Your task to perform on an android device: toggle priority inbox in the gmail app Image 0: 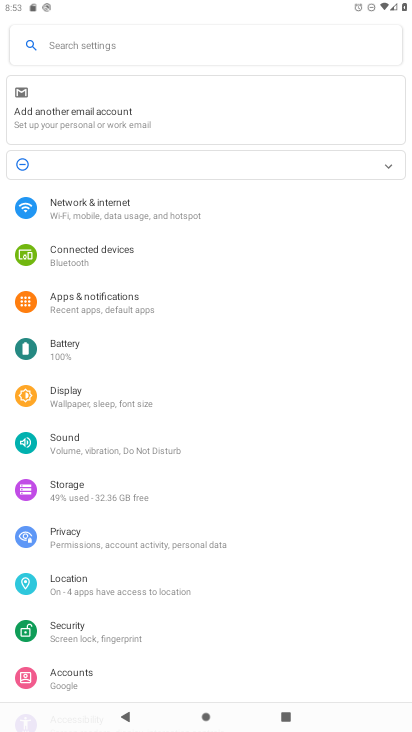
Step 0: press home button
Your task to perform on an android device: toggle priority inbox in the gmail app Image 1: 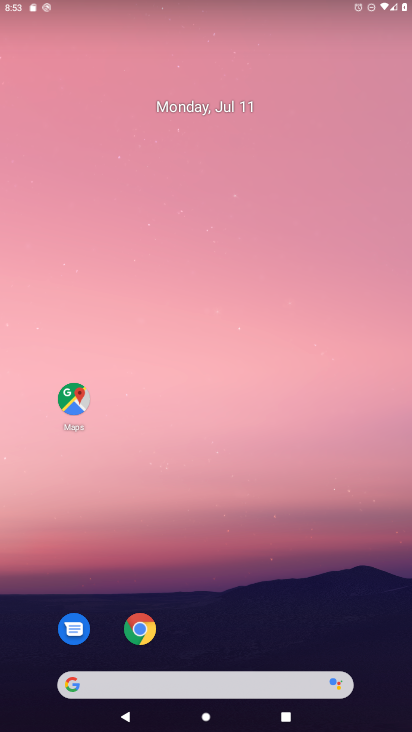
Step 1: drag from (240, 626) to (273, 58)
Your task to perform on an android device: toggle priority inbox in the gmail app Image 2: 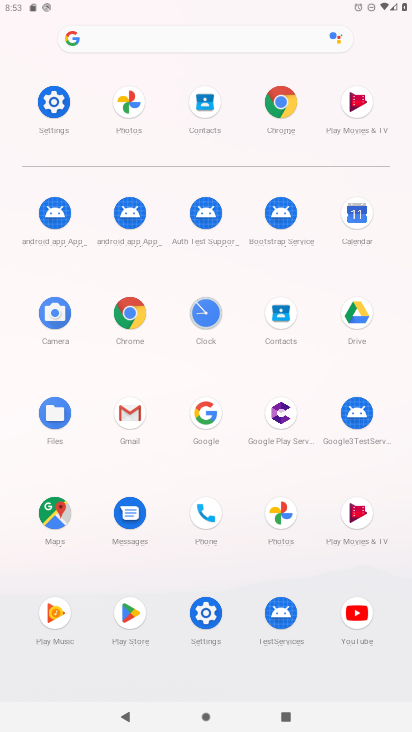
Step 2: click (132, 407)
Your task to perform on an android device: toggle priority inbox in the gmail app Image 3: 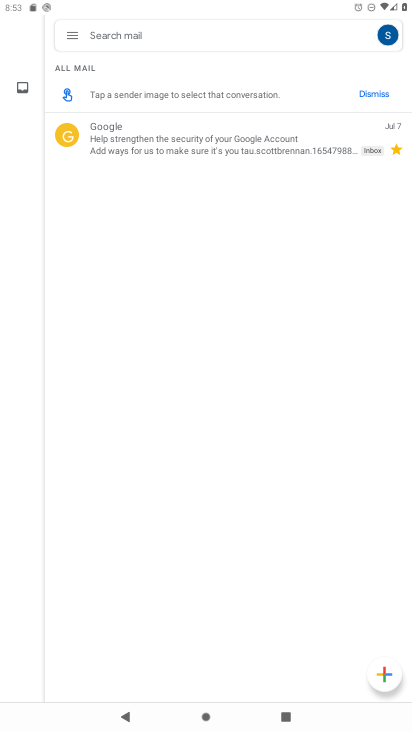
Step 3: click (70, 30)
Your task to perform on an android device: toggle priority inbox in the gmail app Image 4: 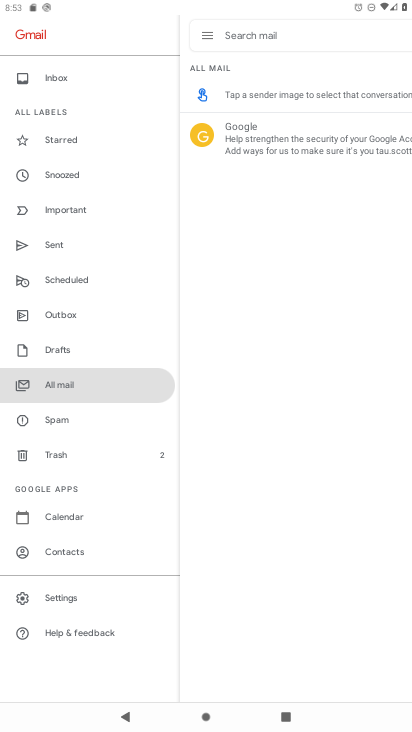
Step 4: click (69, 594)
Your task to perform on an android device: toggle priority inbox in the gmail app Image 5: 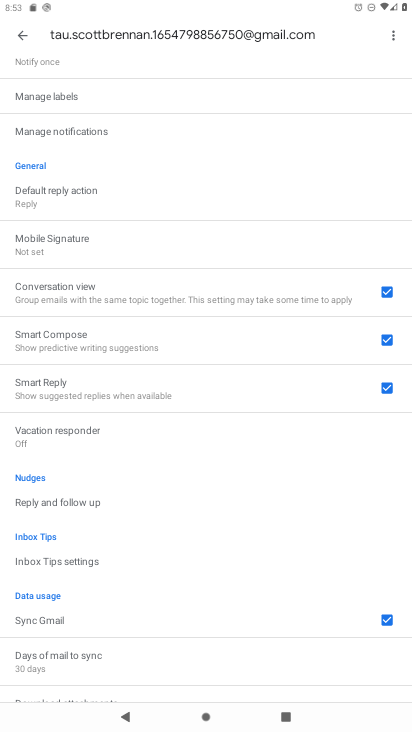
Step 5: drag from (237, 604) to (270, 92)
Your task to perform on an android device: toggle priority inbox in the gmail app Image 6: 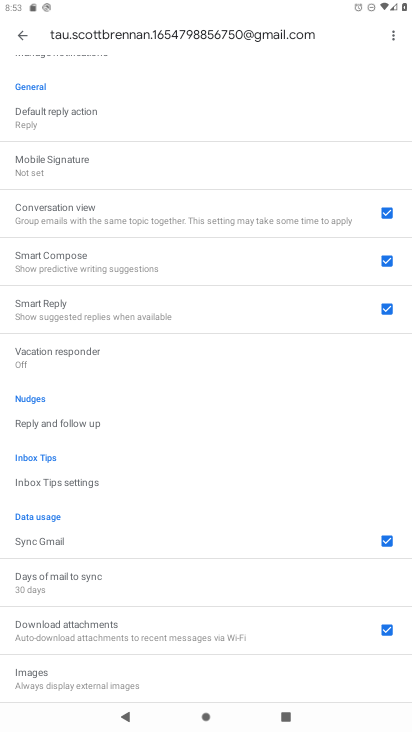
Step 6: drag from (93, 670) to (106, 277)
Your task to perform on an android device: toggle priority inbox in the gmail app Image 7: 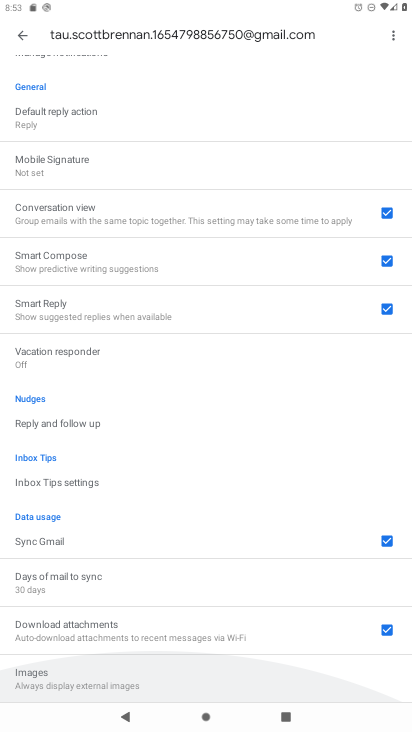
Step 7: drag from (112, 152) to (132, 688)
Your task to perform on an android device: toggle priority inbox in the gmail app Image 8: 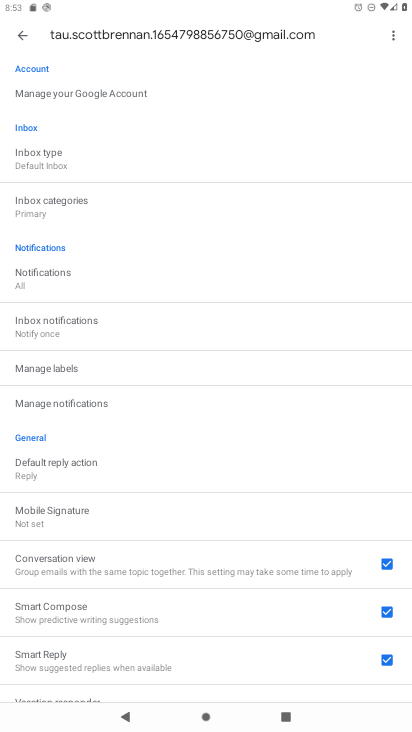
Step 8: click (53, 155)
Your task to perform on an android device: toggle priority inbox in the gmail app Image 9: 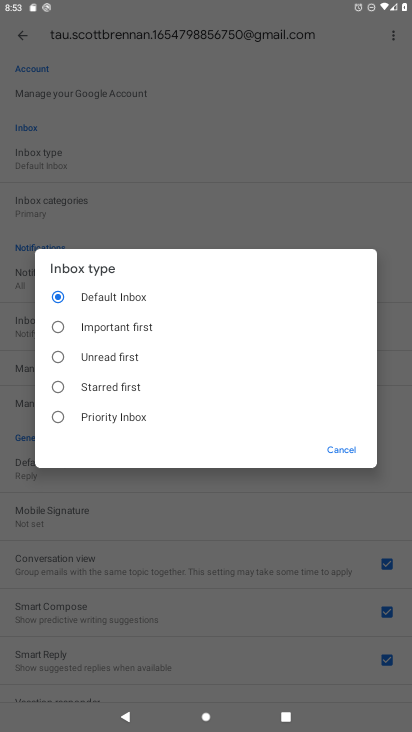
Step 9: click (56, 420)
Your task to perform on an android device: toggle priority inbox in the gmail app Image 10: 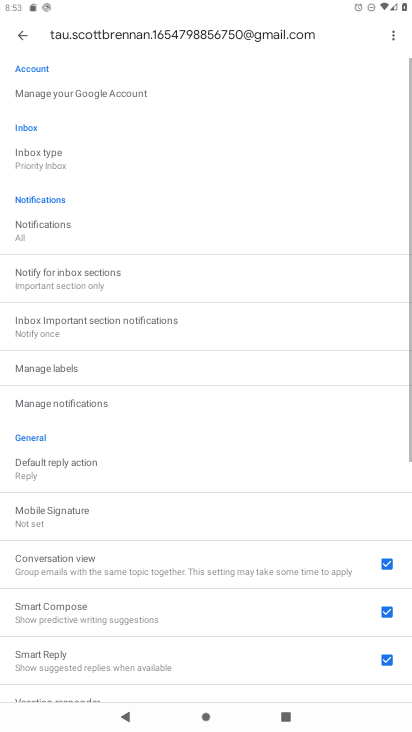
Step 10: task complete